Your task to perform on an android device: Go to Yahoo.com Image 0: 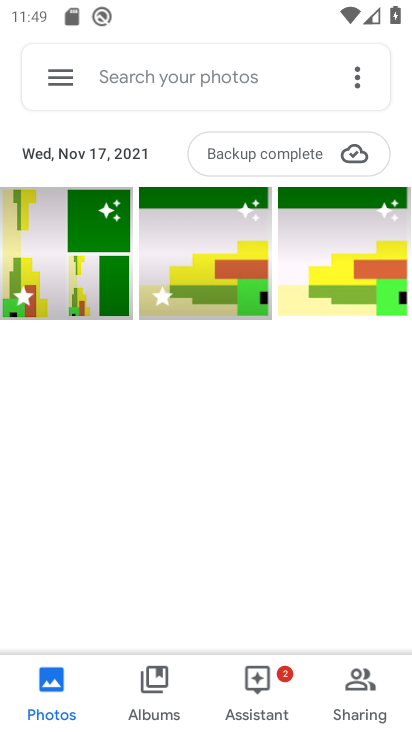
Step 0: press home button
Your task to perform on an android device: Go to Yahoo.com Image 1: 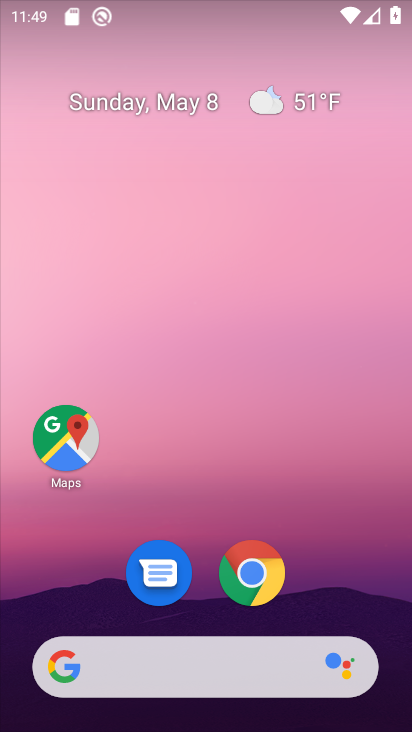
Step 1: drag from (170, 641) to (184, 195)
Your task to perform on an android device: Go to Yahoo.com Image 2: 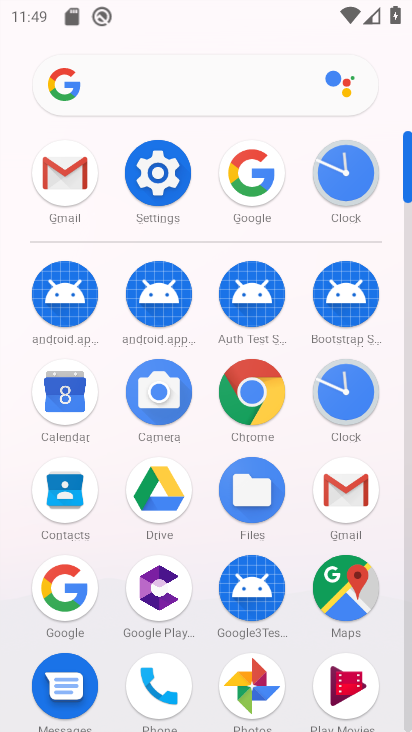
Step 2: click (270, 398)
Your task to perform on an android device: Go to Yahoo.com Image 3: 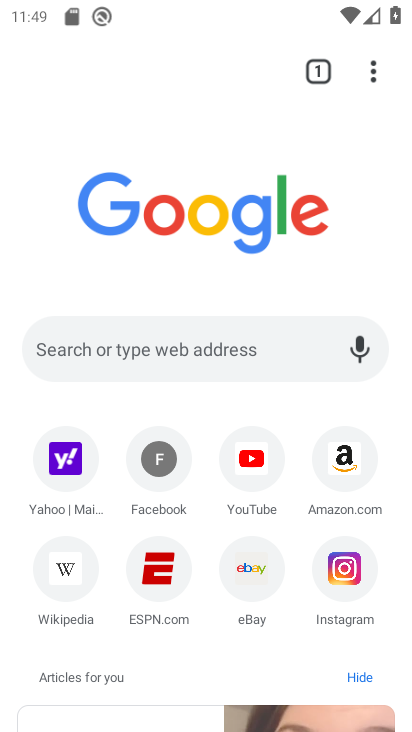
Step 3: click (68, 475)
Your task to perform on an android device: Go to Yahoo.com Image 4: 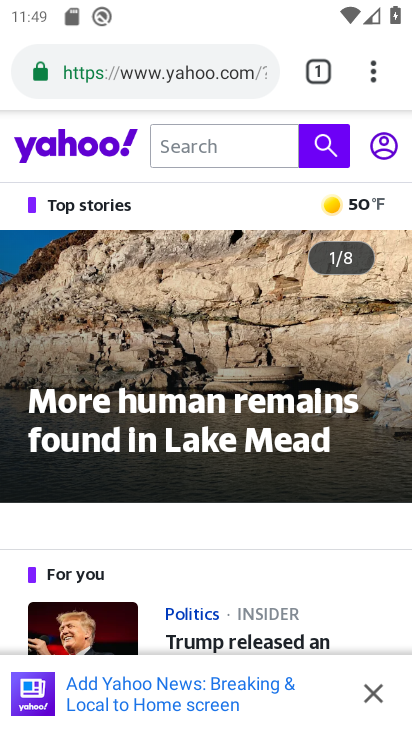
Step 4: task complete